Your task to perform on an android device: open app "Calculator" Image 0: 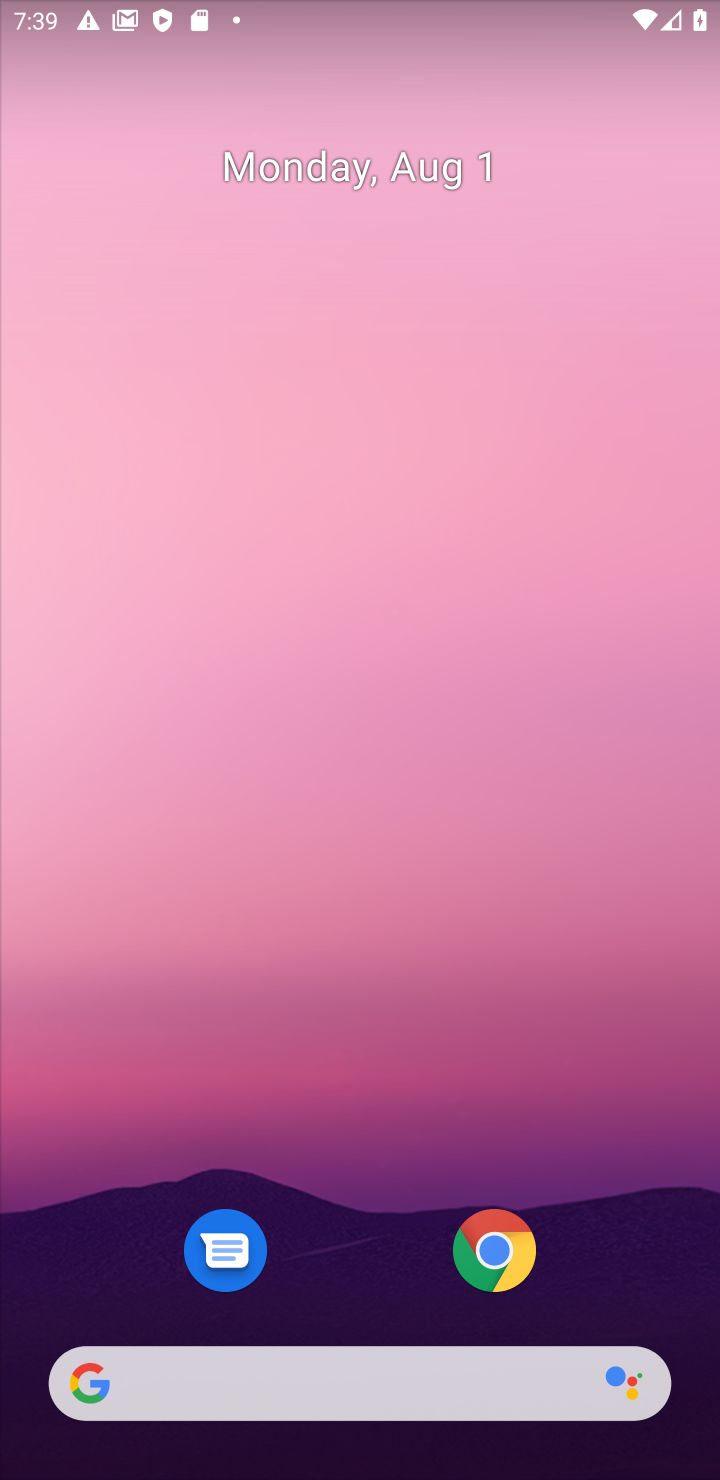
Step 0: drag from (608, 1175) to (473, 26)
Your task to perform on an android device: open app "Calculator" Image 1: 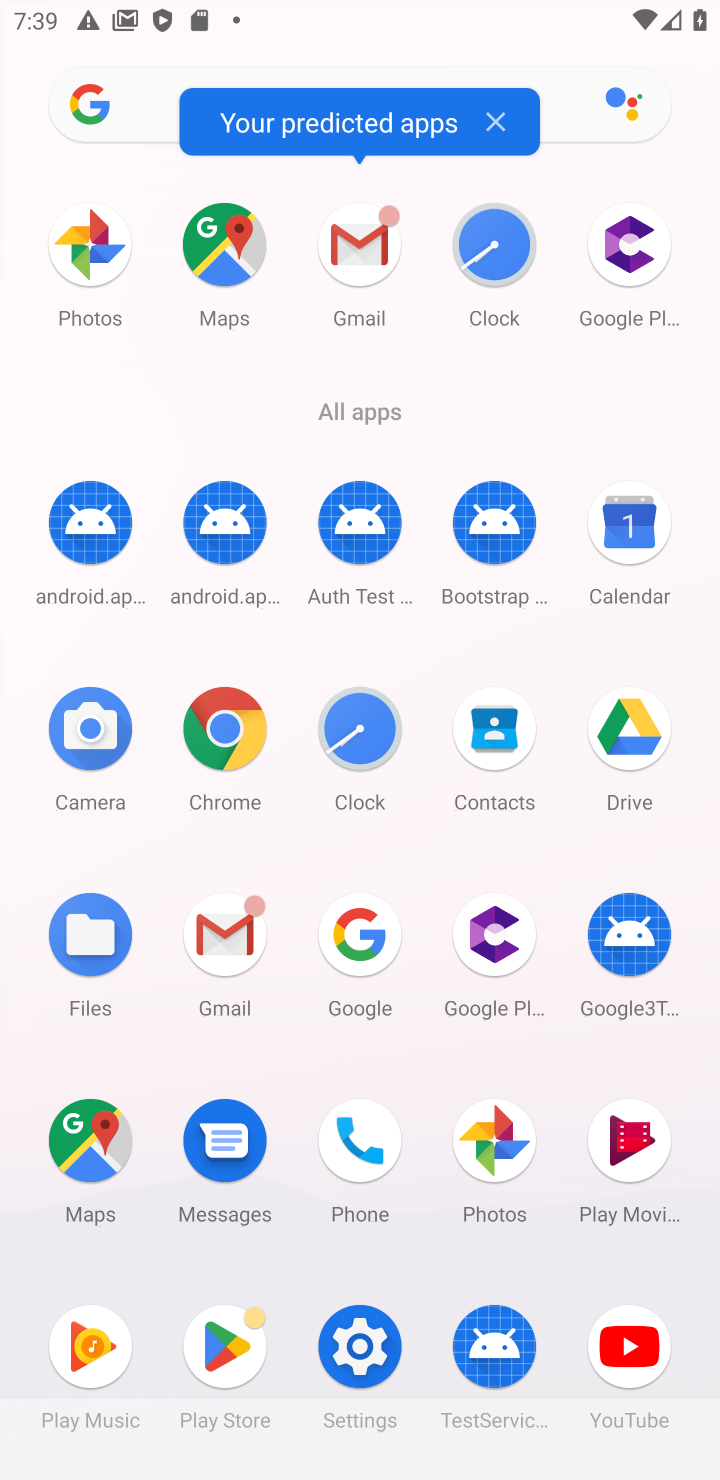
Step 1: click (235, 1327)
Your task to perform on an android device: open app "Calculator" Image 2: 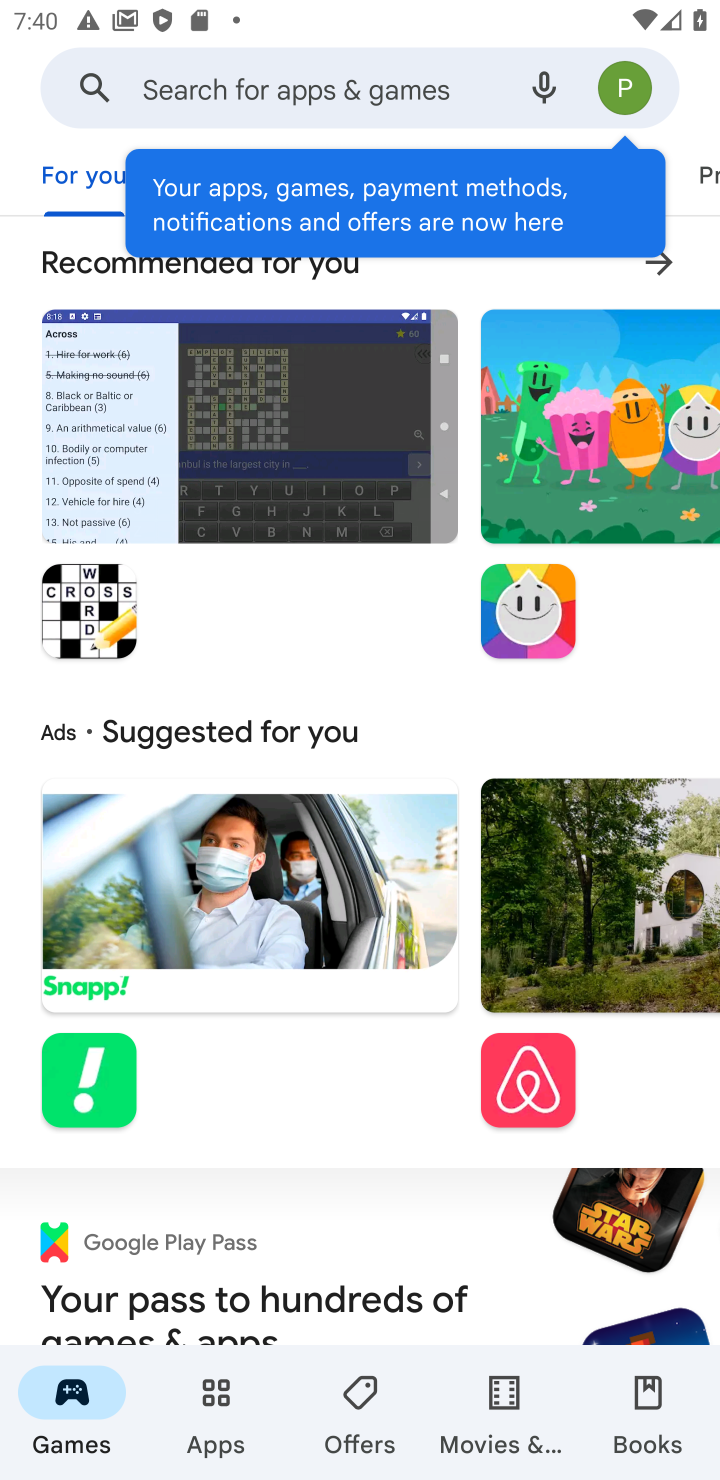
Step 2: click (381, 86)
Your task to perform on an android device: open app "Calculator" Image 3: 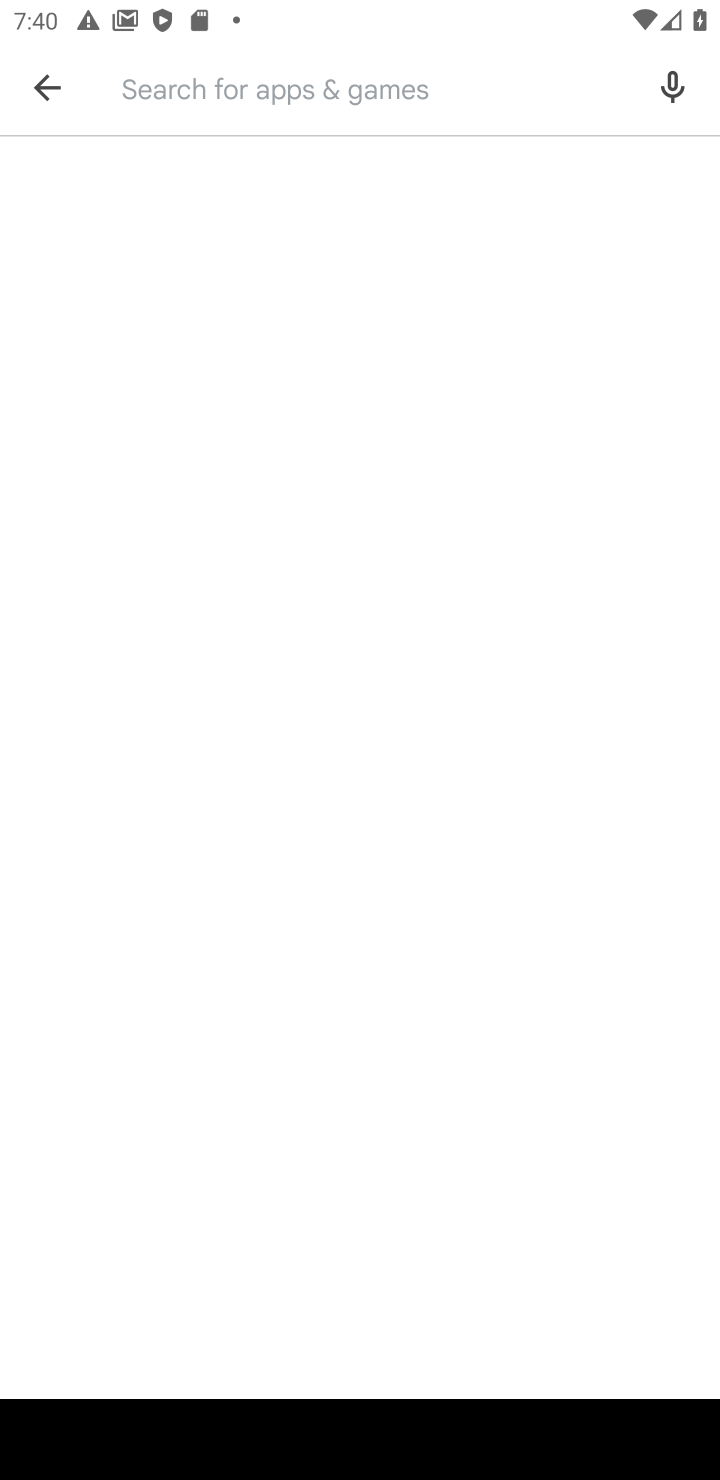
Step 3: type "calculator"
Your task to perform on an android device: open app "Calculator" Image 4: 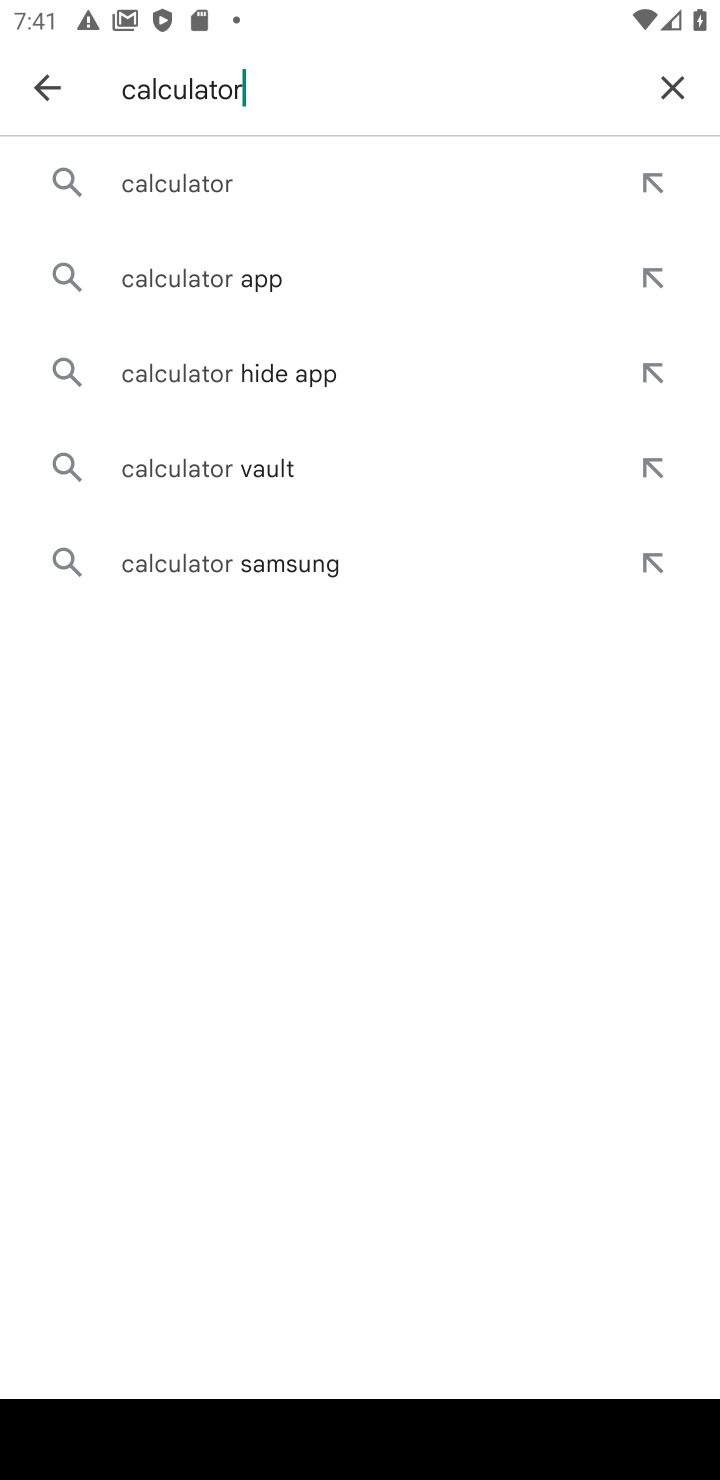
Step 4: click (163, 178)
Your task to perform on an android device: open app "Calculator" Image 5: 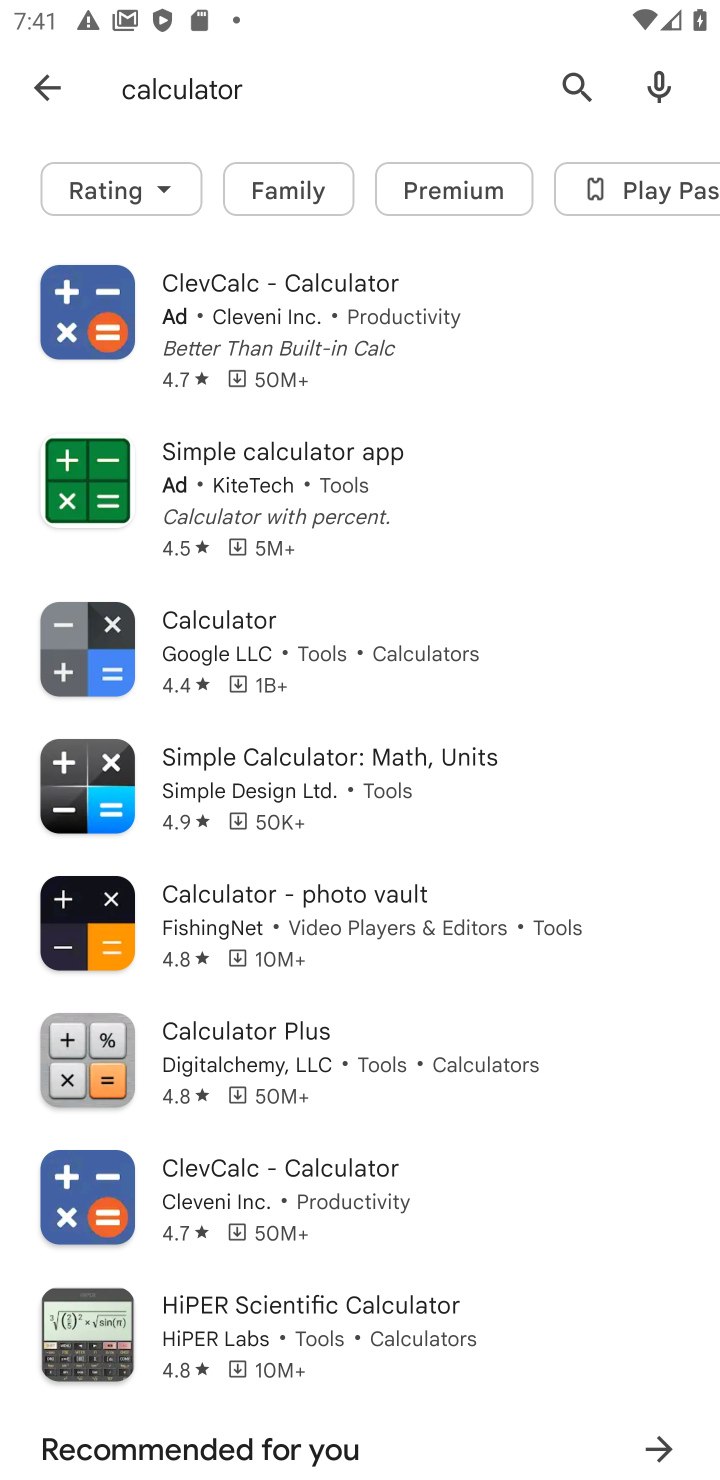
Step 5: click (296, 320)
Your task to perform on an android device: open app "Calculator" Image 6: 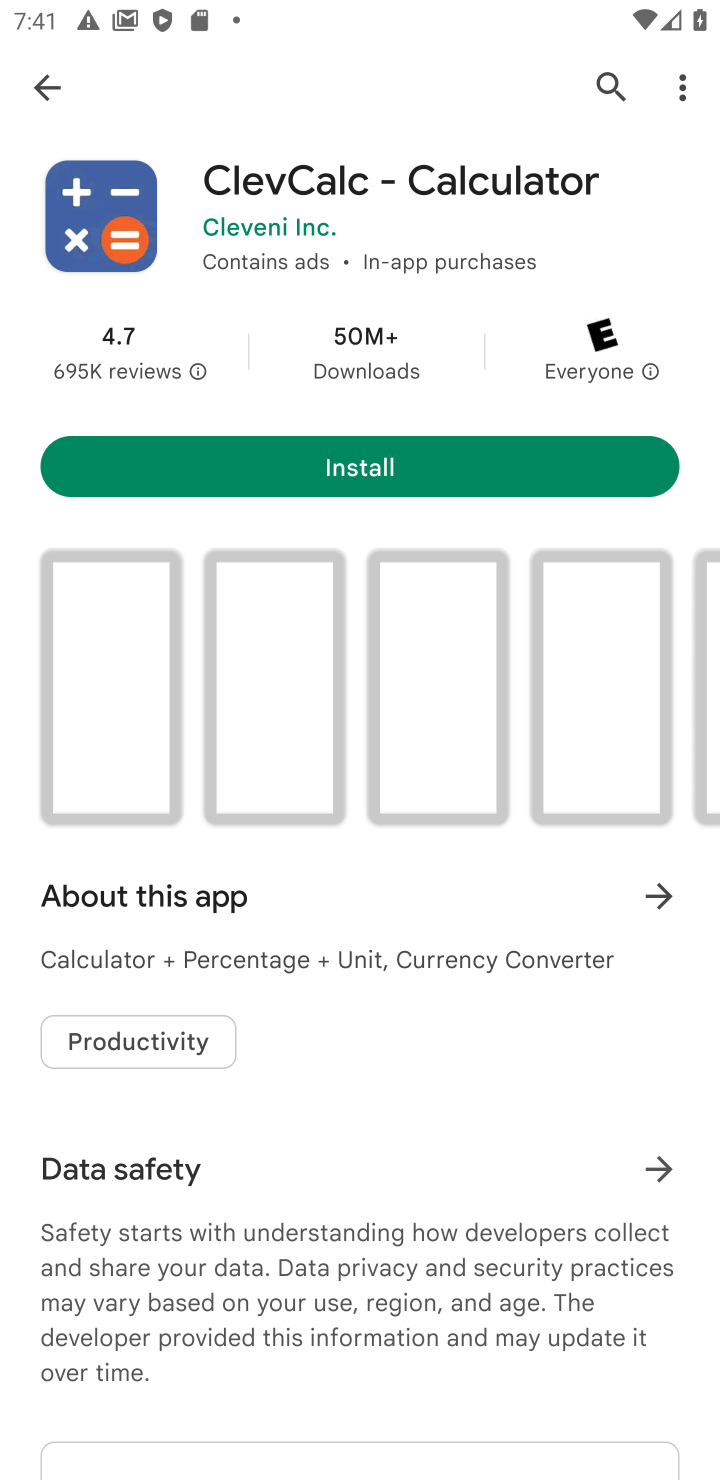
Step 6: click (51, 73)
Your task to perform on an android device: open app "Calculator" Image 7: 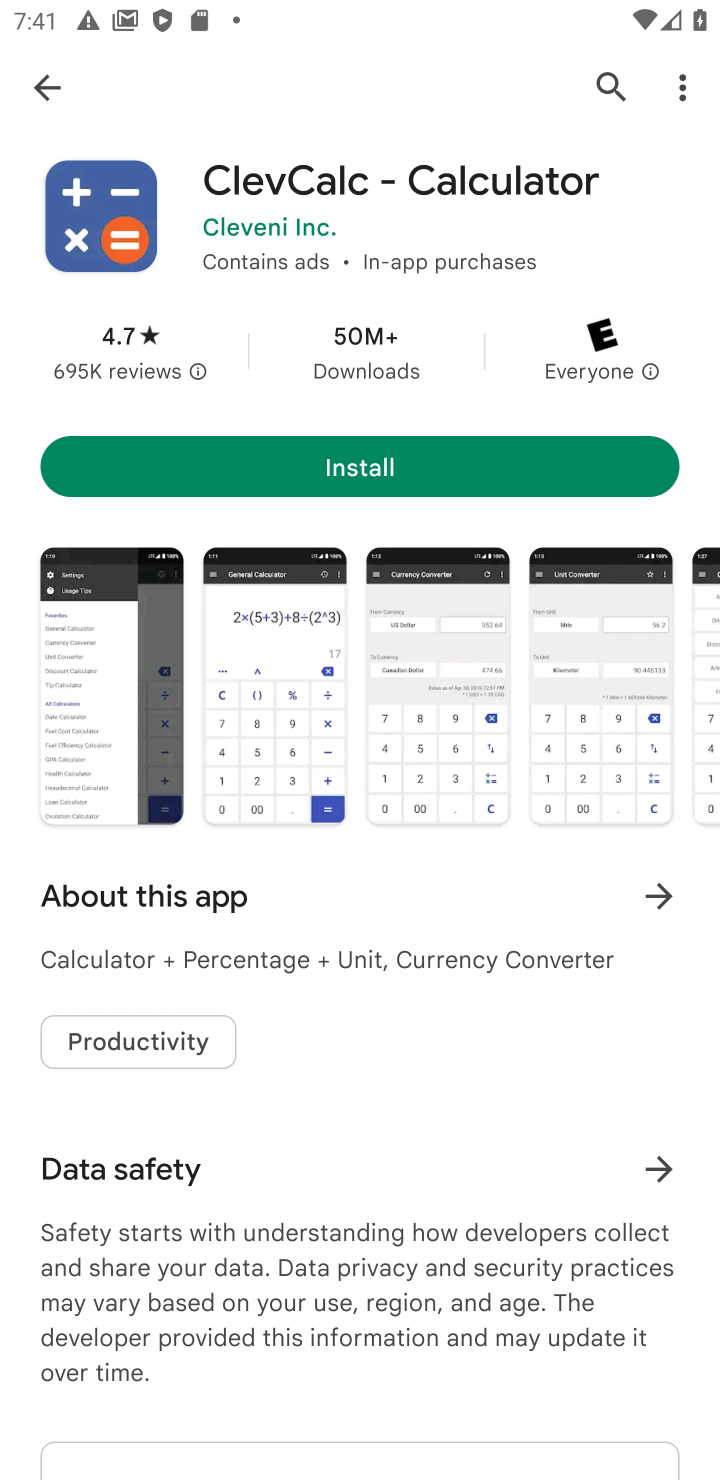
Step 7: click (47, 95)
Your task to perform on an android device: open app "Calculator" Image 8: 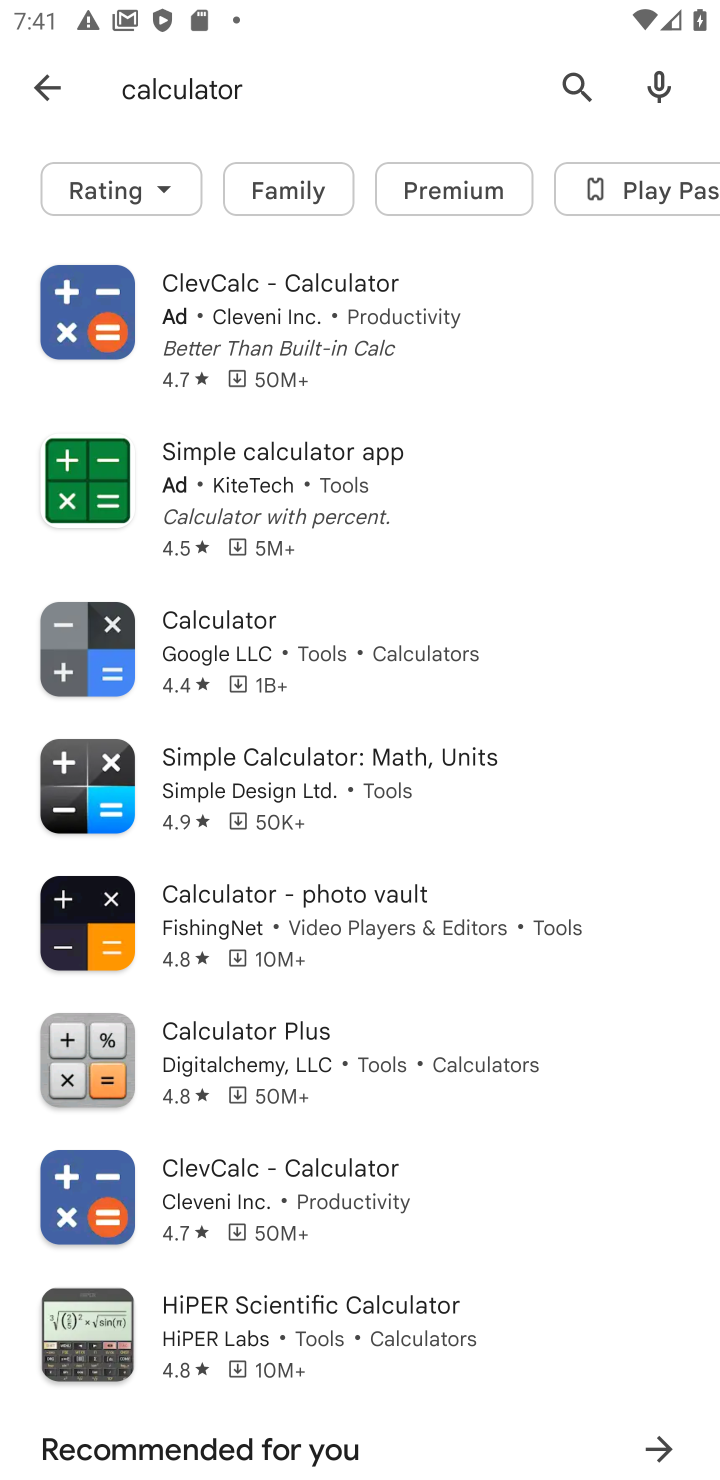
Step 8: click (246, 660)
Your task to perform on an android device: open app "Calculator" Image 9: 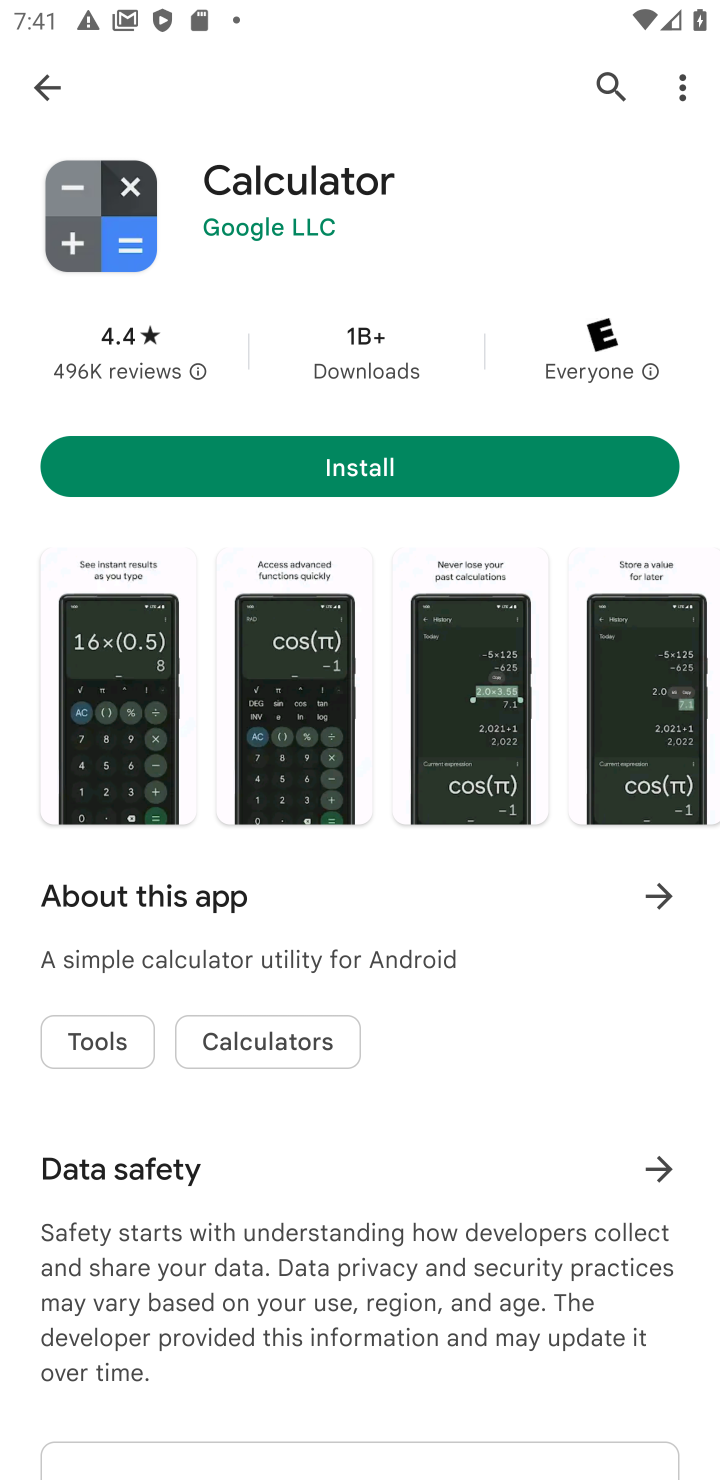
Step 9: task complete